Your task to perform on an android device: check data usage Image 0: 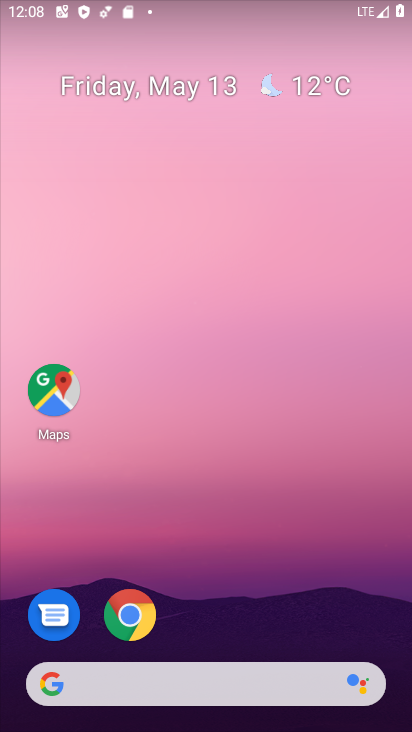
Step 0: drag from (231, 638) to (293, 113)
Your task to perform on an android device: check data usage Image 1: 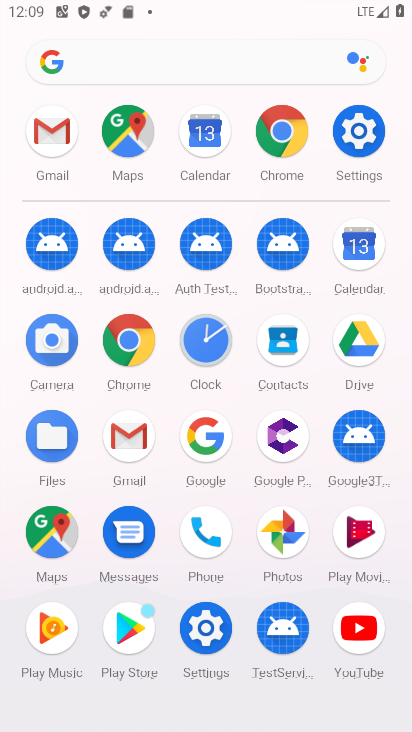
Step 1: click (362, 115)
Your task to perform on an android device: check data usage Image 2: 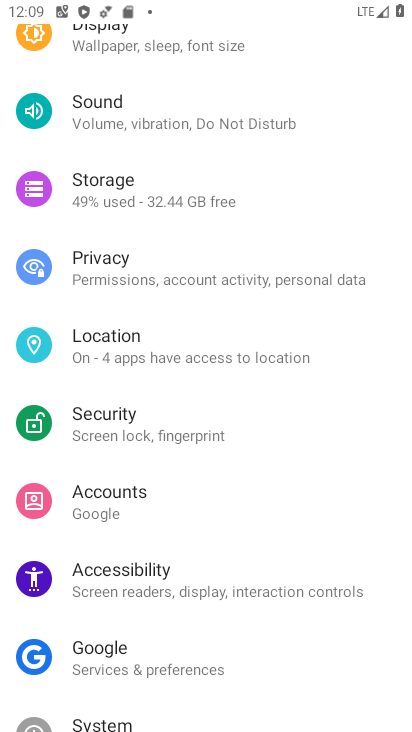
Step 2: drag from (151, 172) to (177, 518)
Your task to perform on an android device: check data usage Image 3: 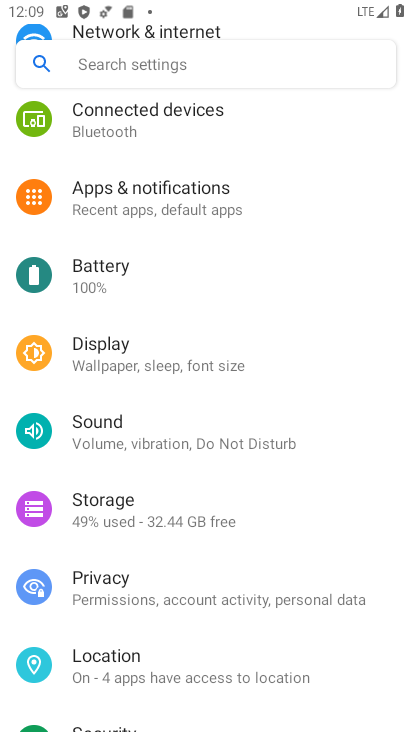
Step 3: drag from (233, 203) to (235, 408)
Your task to perform on an android device: check data usage Image 4: 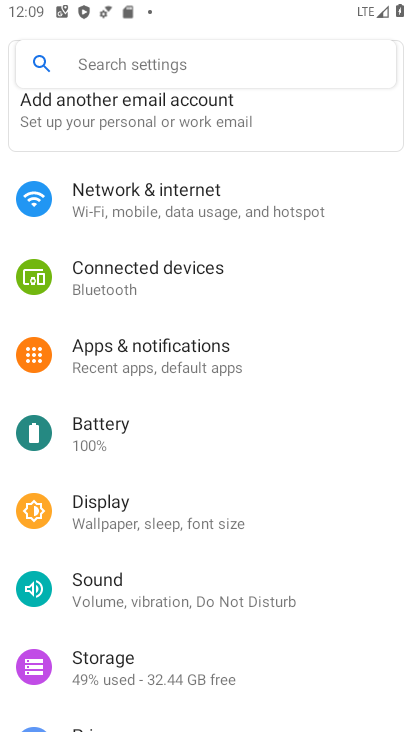
Step 4: click (221, 209)
Your task to perform on an android device: check data usage Image 5: 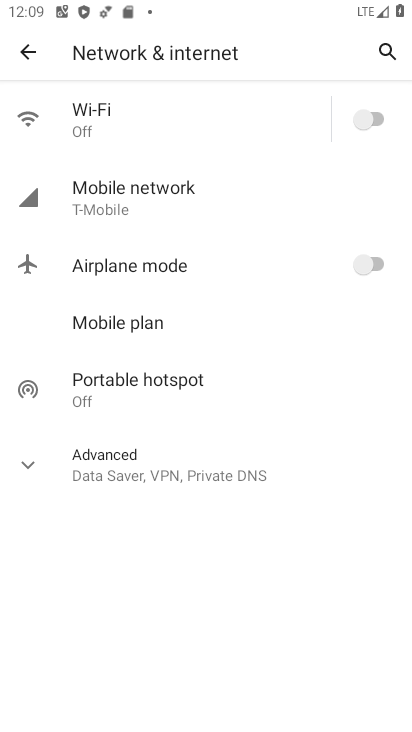
Step 5: click (198, 202)
Your task to perform on an android device: check data usage Image 6: 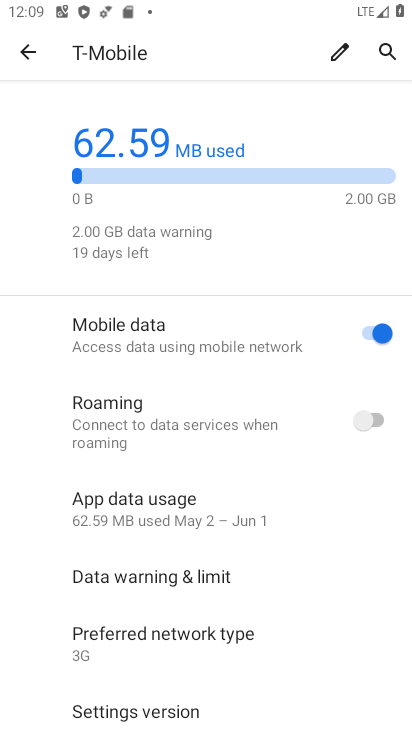
Step 6: click (200, 508)
Your task to perform on an android device: check data usage Image 7: 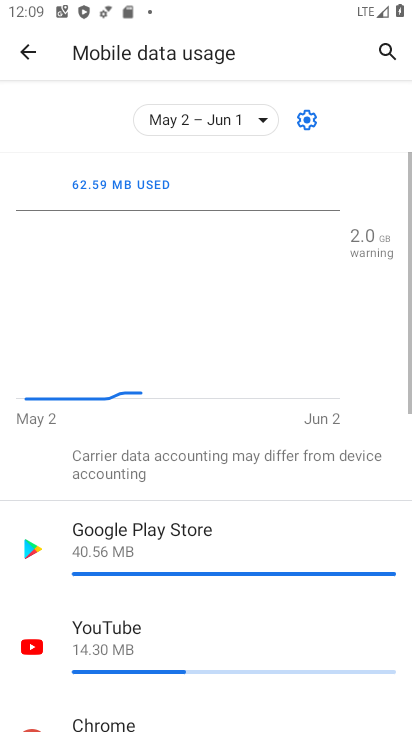
Step 7: task complete